Your task to perform on an android device: toggle improve location accuracy Image 0: 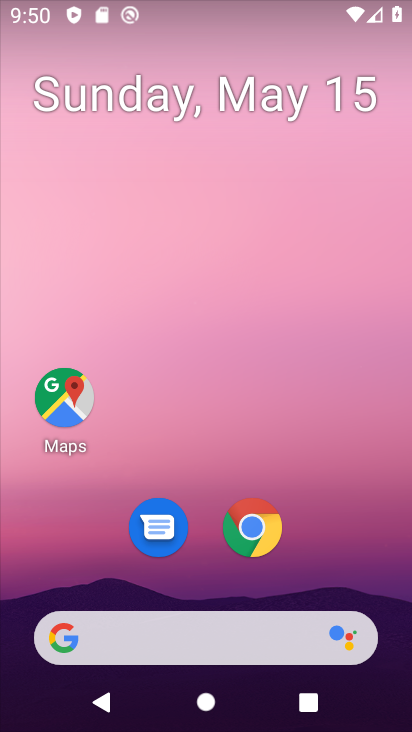
Step 0: drag from (95, 606) to (196, 200)
Your task to perform on an android device: toggle improve location accuracy Image 1: 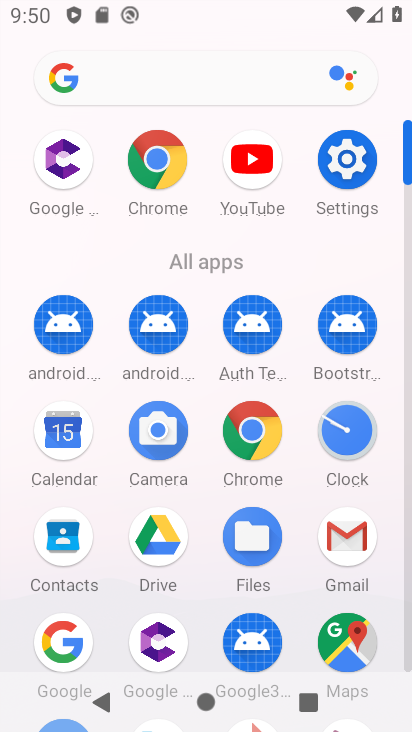
Step 1: drag from (227, 614) to (284, 382)
Your task to perform on an android device: toggle improve location accuracy Image 2: 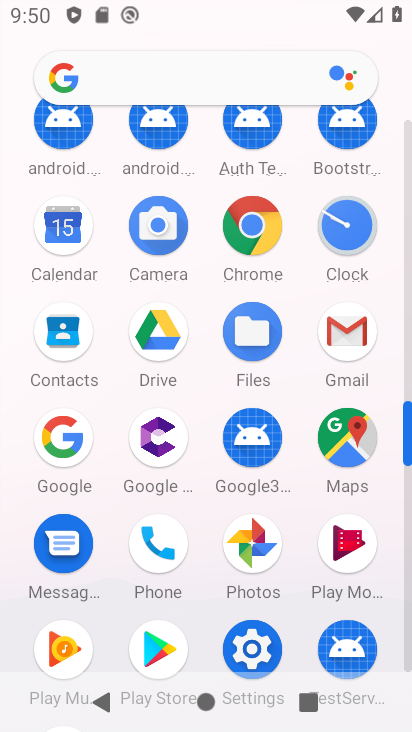
Step 2: click (256, 639)
Your task to perform on an android device: toggle improve location accuracy Image 3: 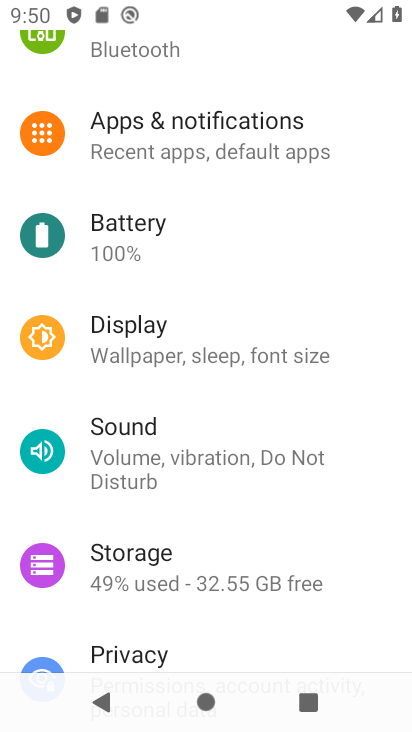
Step 3: drag from (177, 572) to (253, 226)
Your task to perform on an android device: toggle improve location accuracy Image 4: 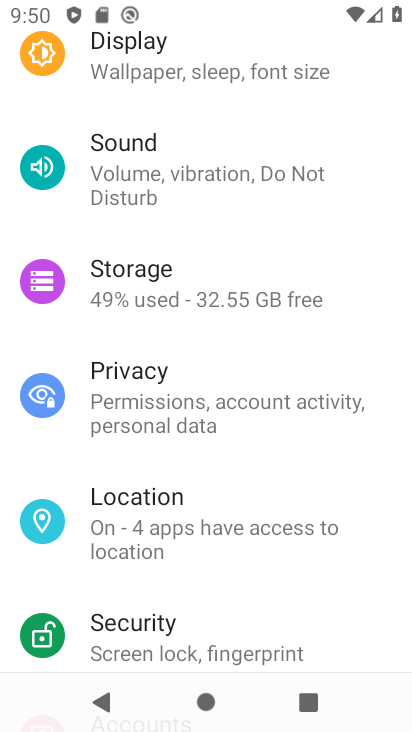
Step 4: click (230, 513)
Your task to perform on an android device: toggle improve location accuracy Image 5: 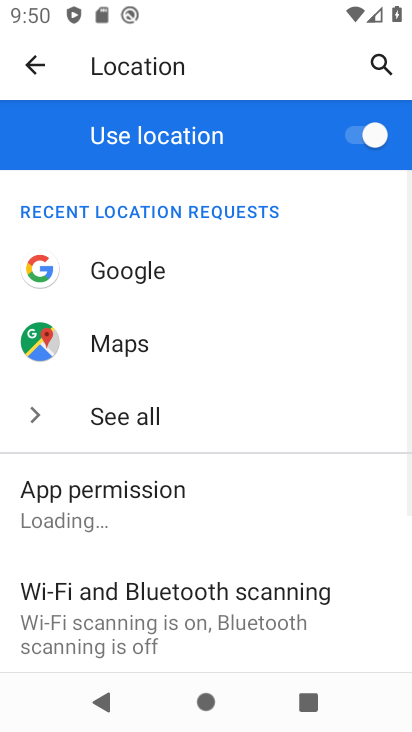
Step 5: drag from (166, 632) to (261, 205)
Your task to perform on an android device: toggle improve location accuracy Image 6: 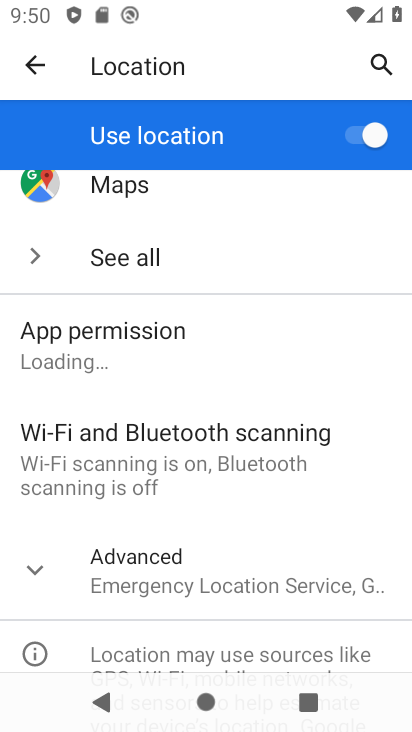
Step 6: click (247, 571)
Your task to perform on an android device: toggle improve location accuracy Image 7: 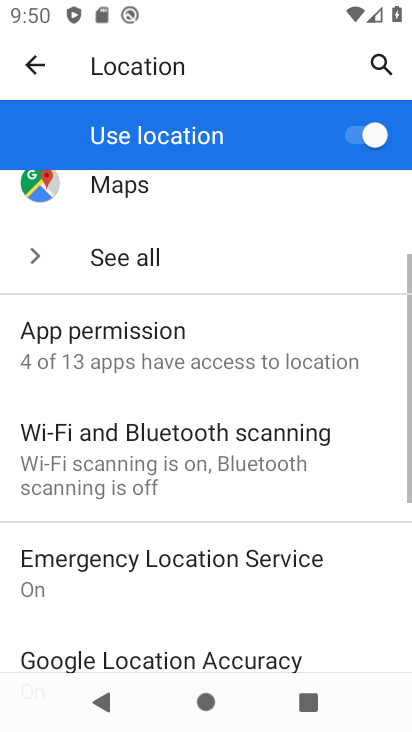
Step 7: drag from (209, 596) to (310, 234)
Your task to perform on an android device: toggle improve location accuracy Image 8: 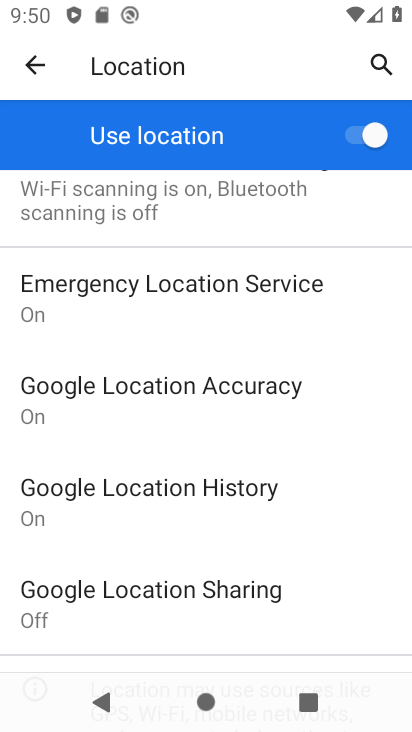
Step 8: click (259, 406)
Your task to perform on an android device: toggle improve location accuracy Image 9: 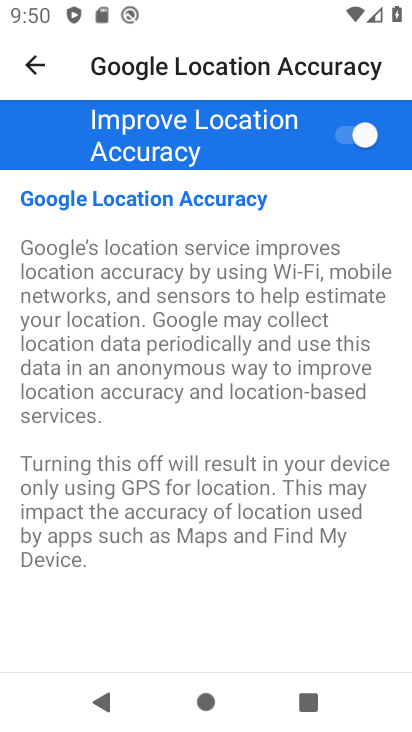
Step 9: click (370, 122)
Your task to perform on an android device: toggle improve location accuracy Image 10: 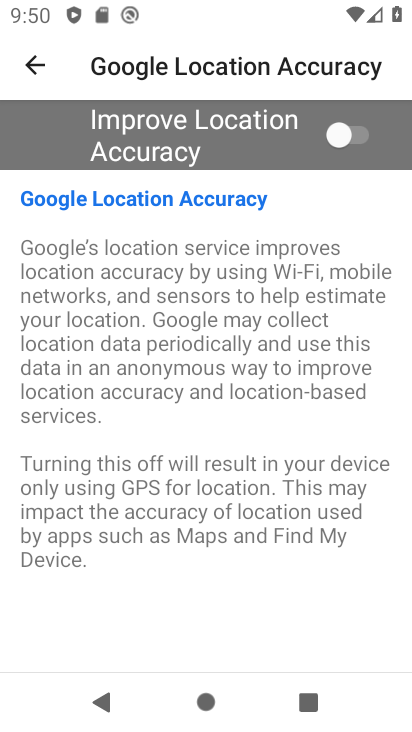
Step 10: task complete